Your task to perform on an android device: turn on the 12-hour format for clock Image 0: 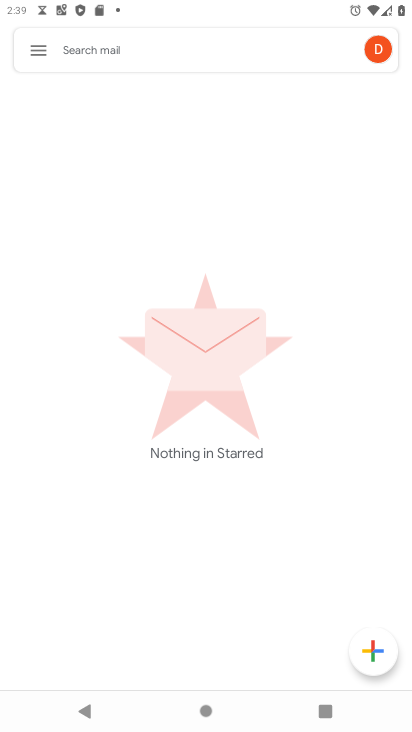
Step 0: press home button
Your task to perform on an android device: turn on the 12-hour format for clock Image 1: 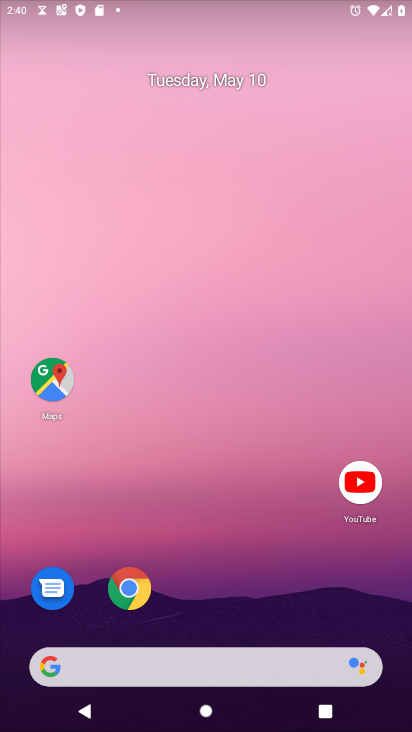
Step 1: drag from (213, 587) to (205, 82)
Your task to perform on an android device: turn on the 12-hour format for clock Image 2: 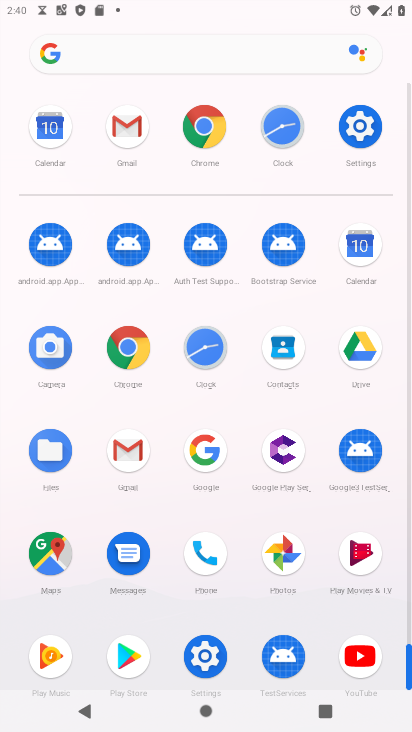
Step 2: click (220, 343)
Your task to perform on an android device: turn on the 12-hour format for clock Image 3: 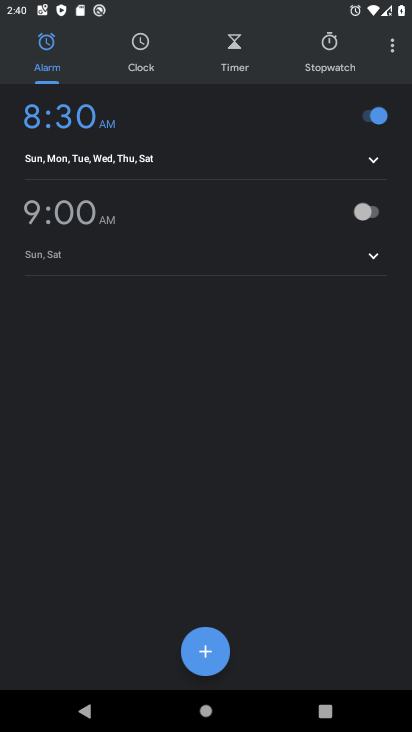
Step 3: click (387, 47)
Your task to perform on an android device: turn on the 12-hour format for clock Image 4: 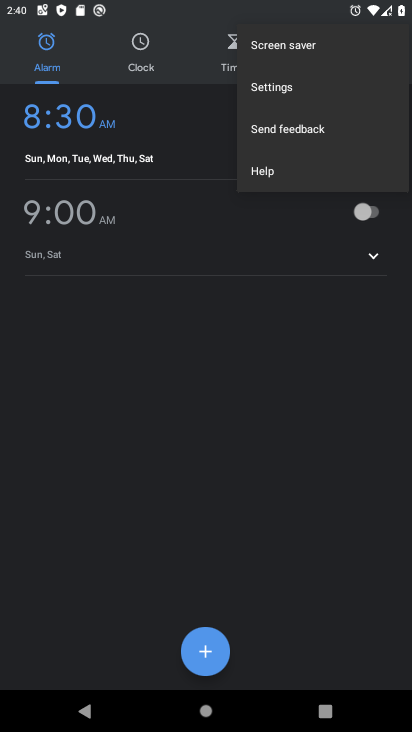
Step 4: click (305, 84)
Your task to perform on an android device: turn on the 12-hour format for clock Image 5: 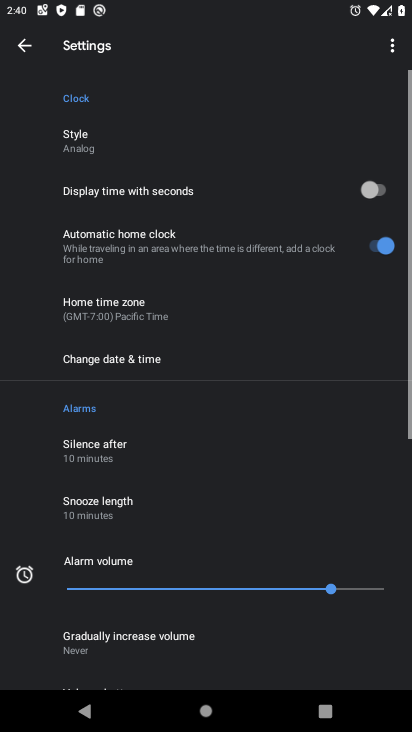
Step 5: drag from (252, 617) to (268, 305)
Your task to perform on an android device: turn on the 12-hour format for clock Image 6: 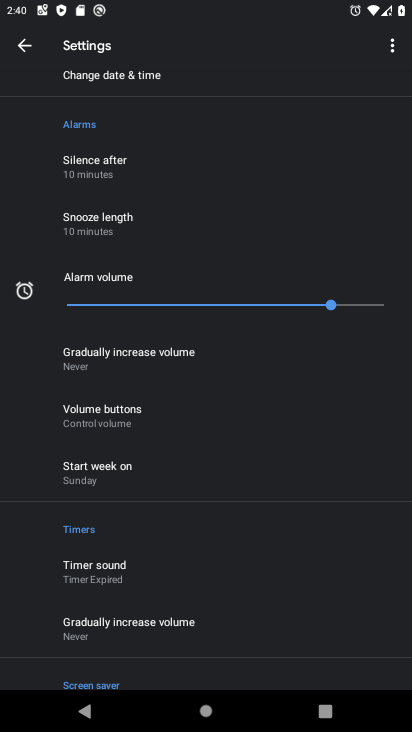
Step 6: drag from (146, 121) to (165, 181)
Your task to perform on an android device: turn on the 12-hour format for clock Image 7: 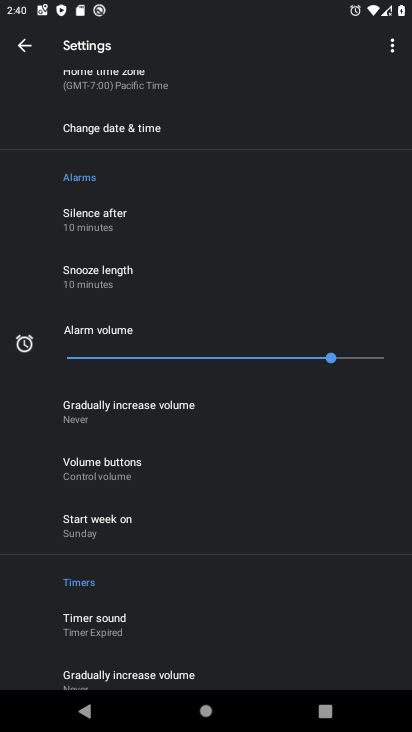
Step 7: click (129, 132)
Your task to perform on an android device: turn on the 12-hour format for clock Image 8: 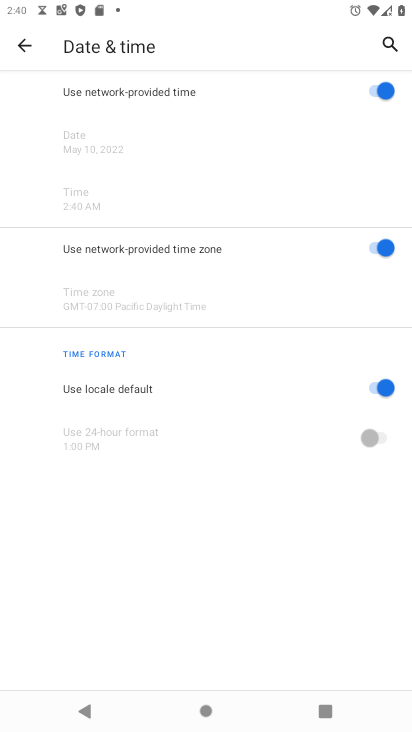
Step 8: click (373, 388)
Your task to perform on an android device: turn on the 12-hour format for clock Image 9: 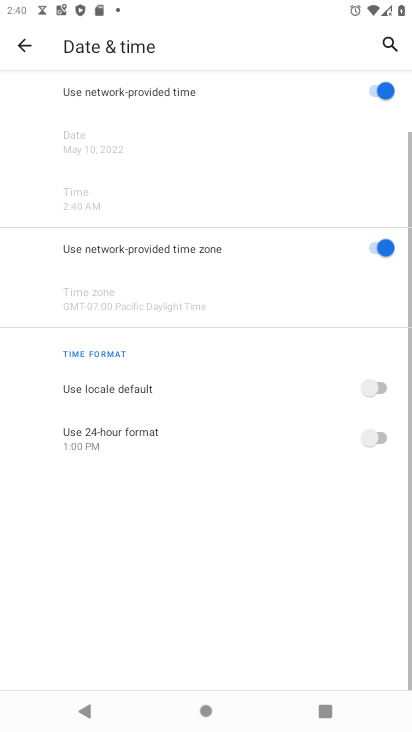
Step 9: click (382, 434)
Your task to perform on an android device: turn on the 12-hour format for clock Image 10: 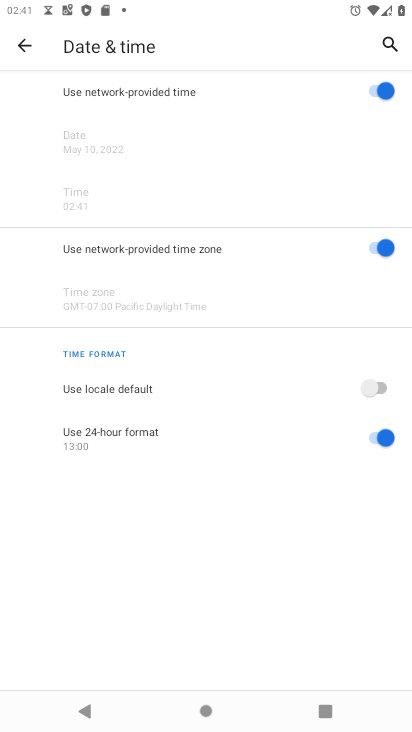
Step 10: task complete